Your task to perform on an android device: set default search engine in the chrome app Image 0: 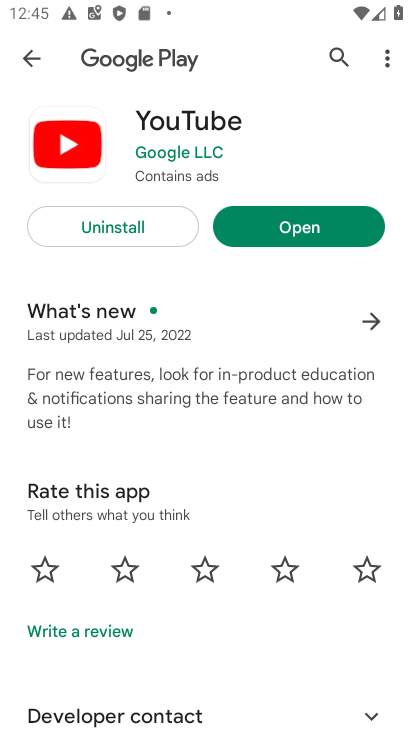
Step 0: press home button
Your task to perform on an android device: set default search engine in the chrome app Image 1: 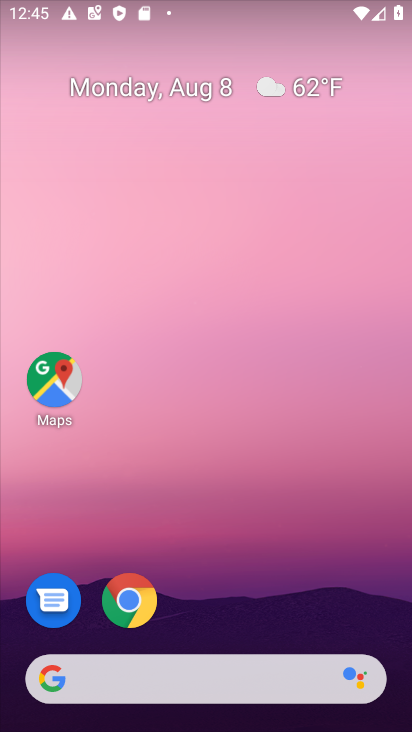
Step 1: click (139, 595)
Your task to perform on an android device: set default search engine in the chrome app Image 2: 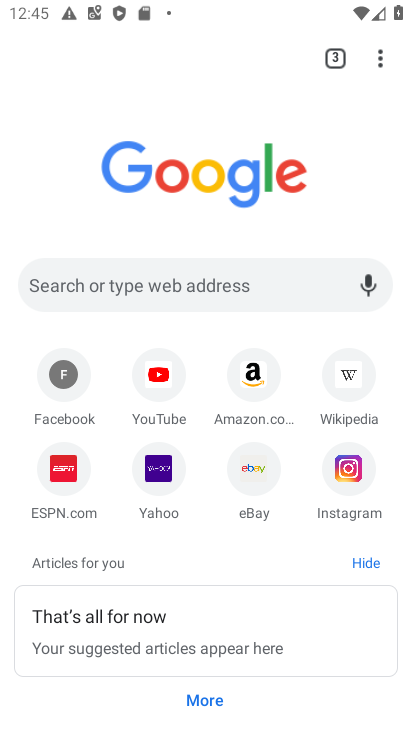
Step 2: click (377, 63)
Your task to perform on an android device: set default search engine in the chrome app Image 3: 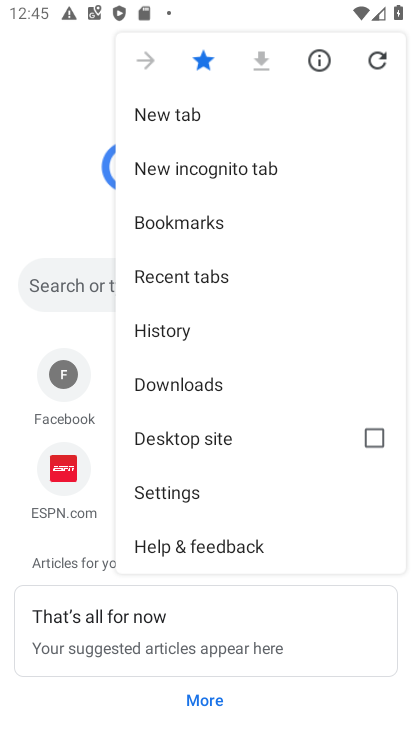
Step 3: click (176, 497)
Your task to perform on an android device: set default search engine in the chrome app Image 4: 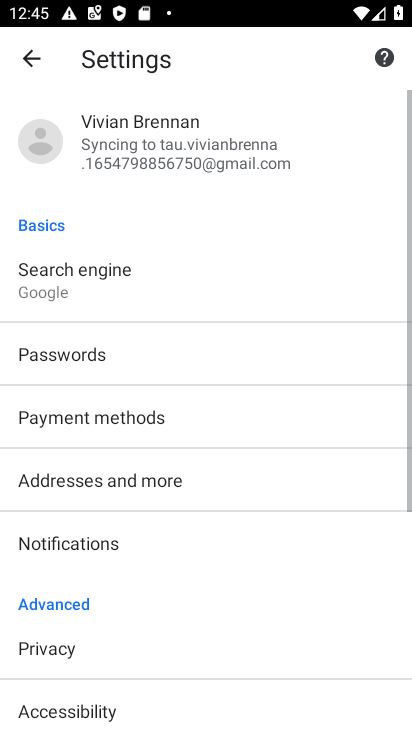
Step 4: click (110, 266)
Your task to perform on an android device: set default search engine in the chrome app Image 5: 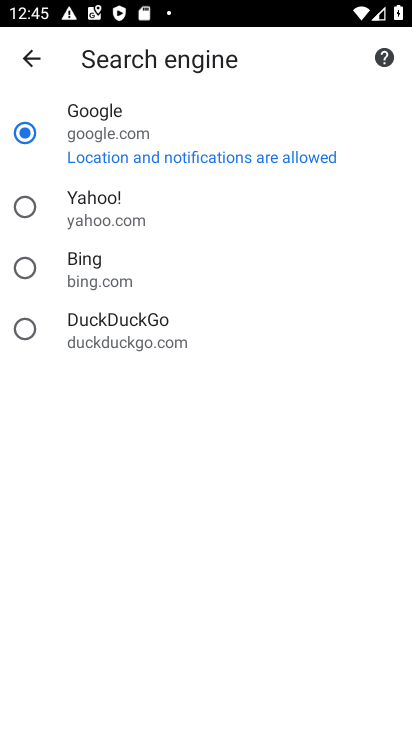
Step 5: task complete